Your task to perform on an android device: add a contact Image 0: 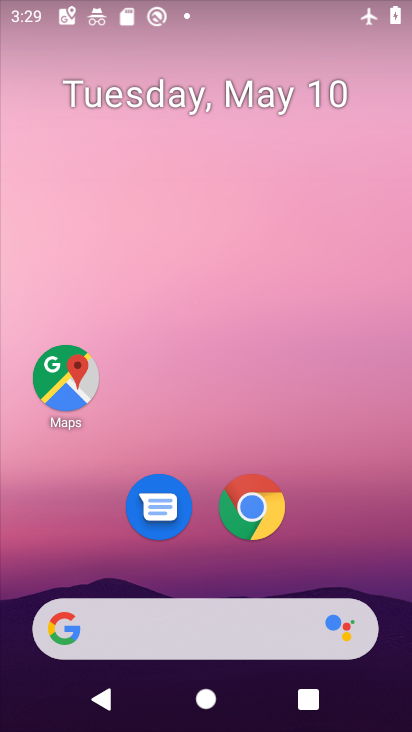
Step 0: drag from (200, 410) to (229, 246)
Your task to perform on an android device: add a contact Image 1: 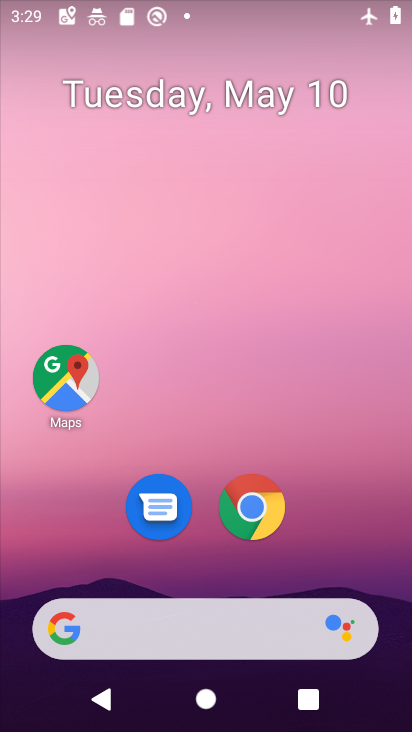
Step 1: drag from (185, 556) to (240, 142)
Your task to perform on an android device: add a contact Image 2: 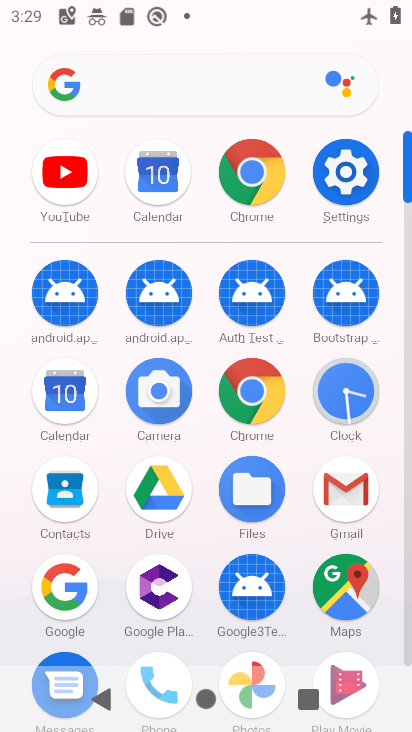
Step 2: click (52, 502)
Your task to perform on an android device: add a contact Image 3: 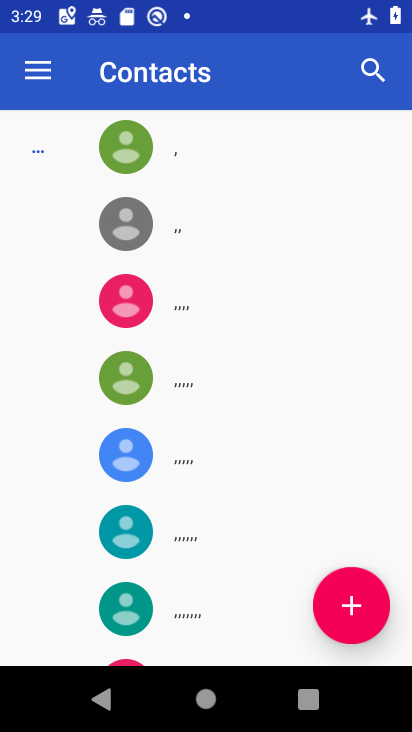
Step 3: click (352, 602)
Your task to perform on an android device: add a contact Image 4: 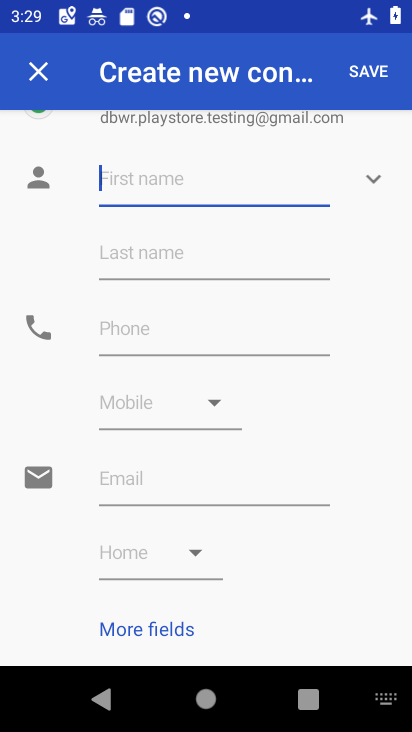
Step 4: type "ddvf"
Your task to perform on an android device: add a contact Image 5: 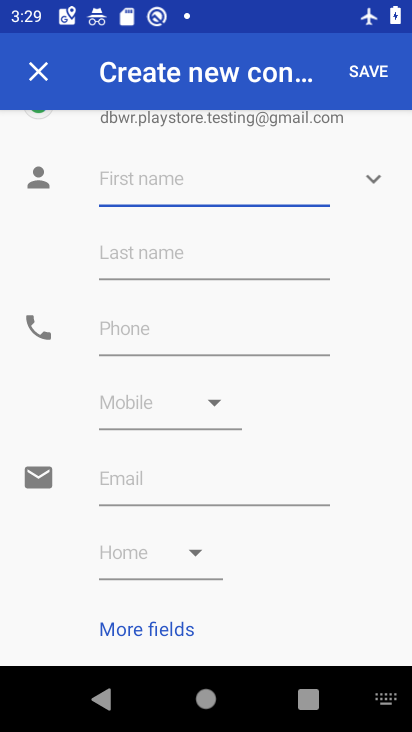
Step 5: click (120, 260)
Your task to perform on an android device: add a contact Image 6: 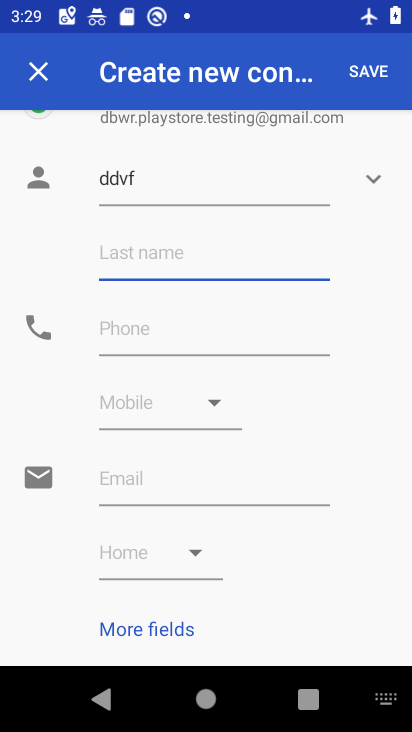
Step 6: click (130, 344)
Your task to perform on an android device: add a contact Image 7: 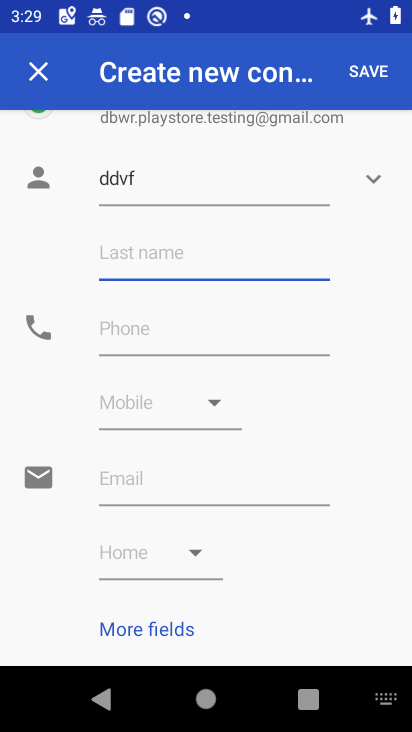
Step 7: type "bfgf"
Your task to perform on an android device: add a contact Image 8: 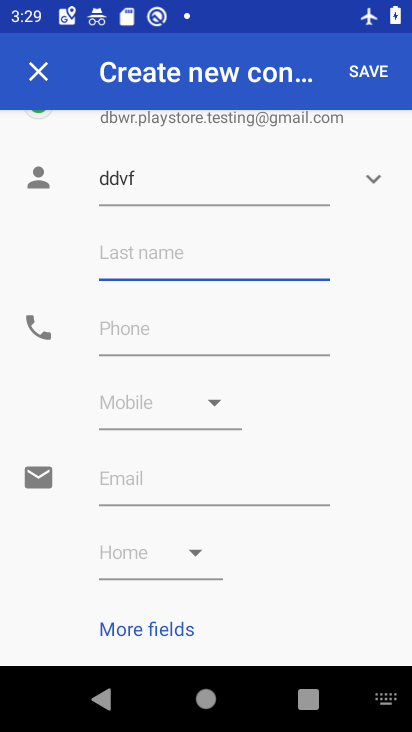
Step 8: click (130, 344)
Your task to perform on an android device: add a contact Image 9: 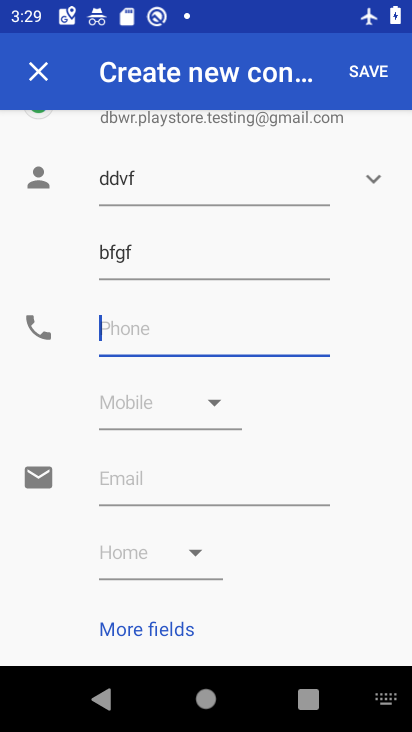
Step 9: type "4464"
Your task to perform on an android device: add a contact Image 10: 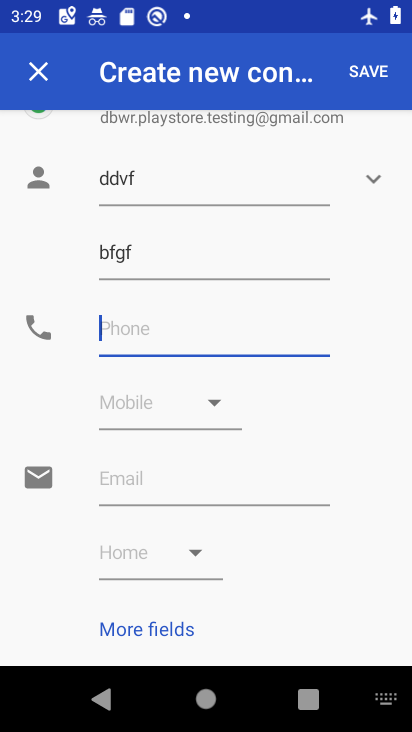
Step 10: click (130, 400)
Your task to perform on an android device: add a contact Image 11: 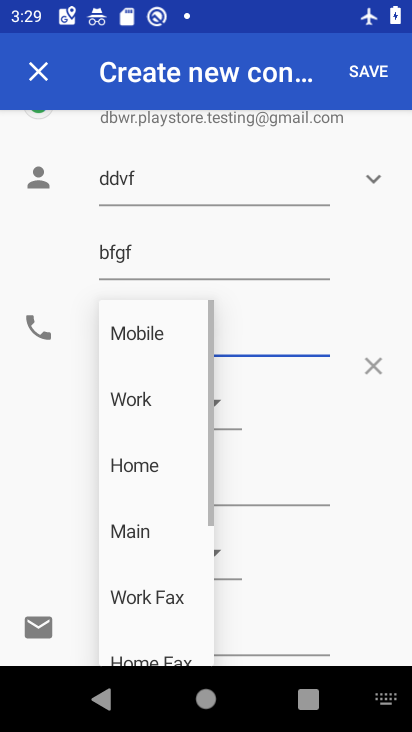
Step 11: click (367, 76)
Your task to perform on an android device: add a contact Image 12: 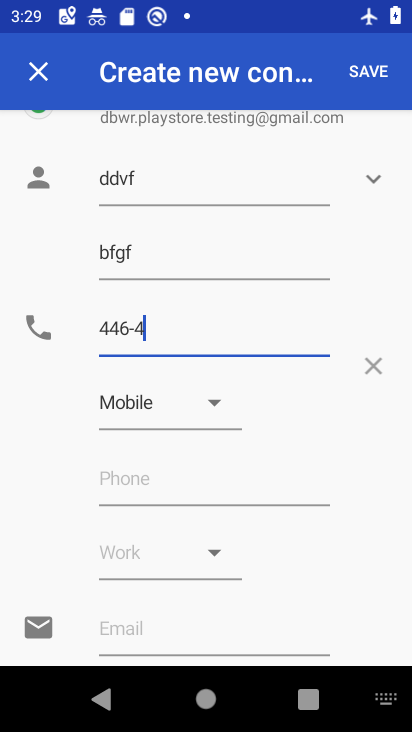
Step 12: click (363, 72)
Your task to perform on an android device: add a contact Image 13: 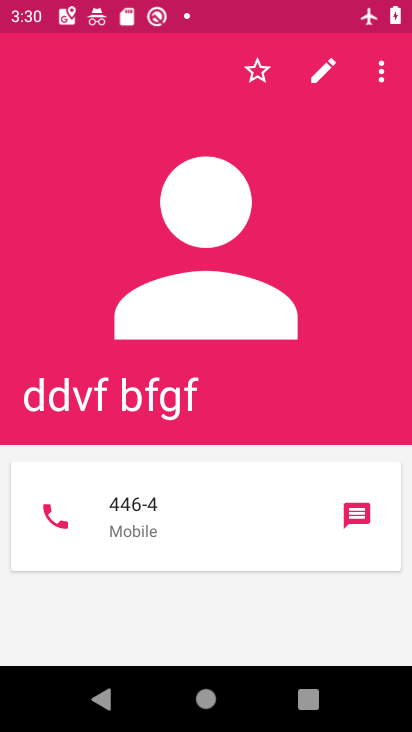
Step 13: task complete